Your task to perform on an android device: Do I have any events today? Image 0: 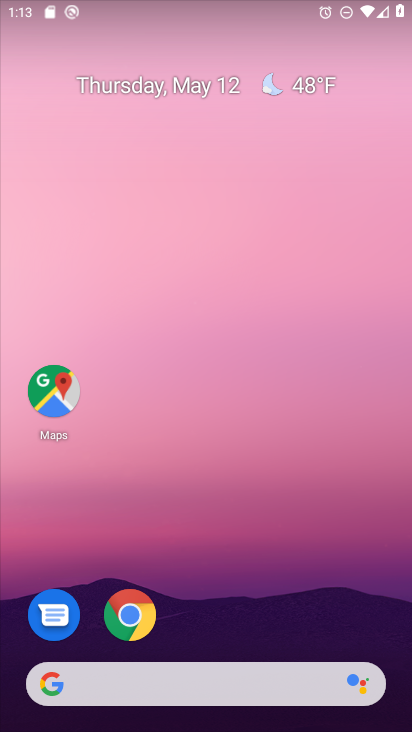
Step 0: drag from (246, 655) to (246, 64)
Your task to perform on an android device: Do I have any events today? Image 1: 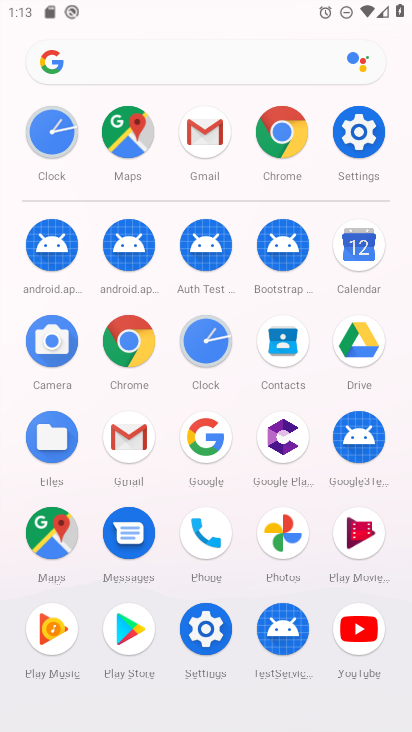
Step 1: click (362, 266)
Your task to perform on an android device: Do I have any events today? Image 2: 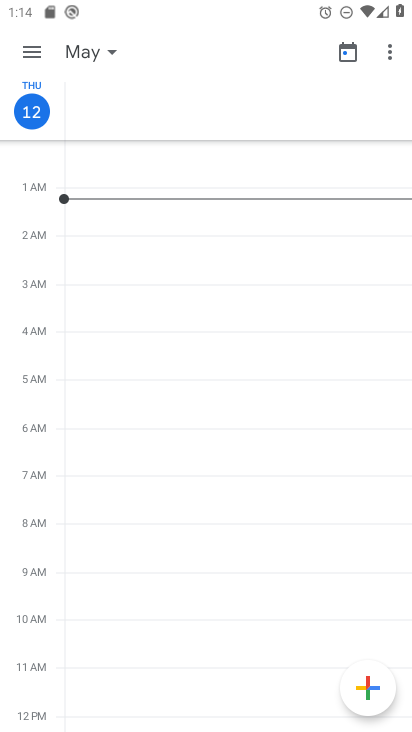
Step 2: click (109, 49)
Your task to perform on an android device: Do I have any events today? Image 3: 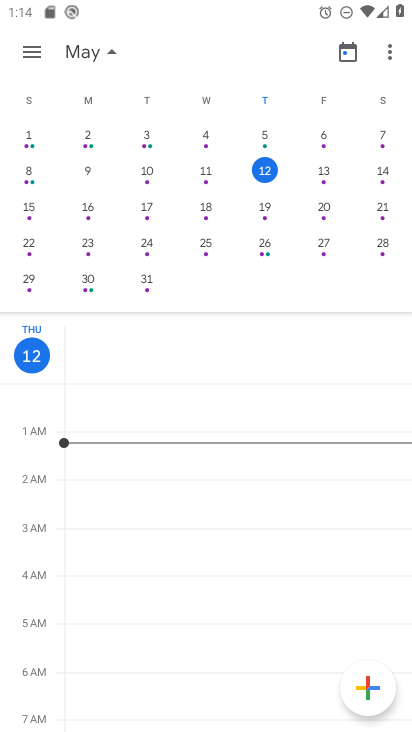
Step 3: click (258, 167)
Your task to perform on an android device: Do I have any events today? Image 4: 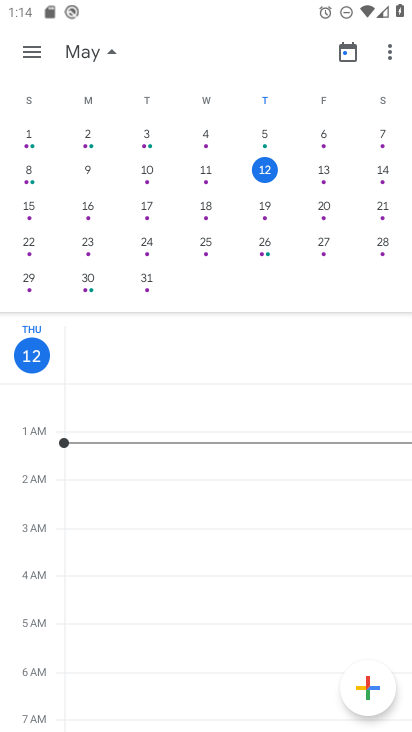
Step 4: task complete